Your task to perform on an android device: Go to internet settings Image 0: 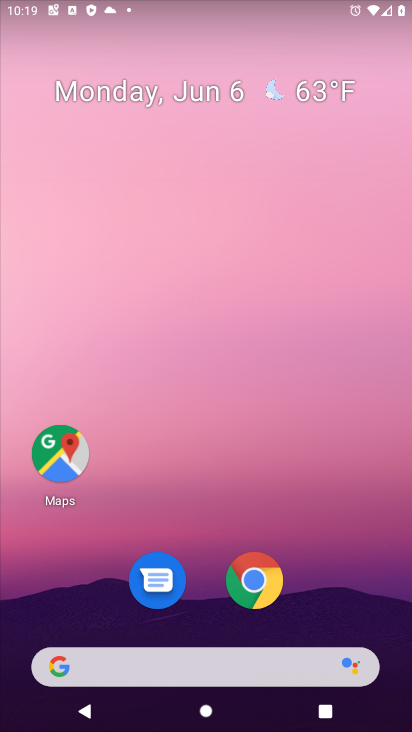
Step 0: drag from (336, 600) to (70, 0)
Your task to perform on an android device: Go to internet settings Image 1: 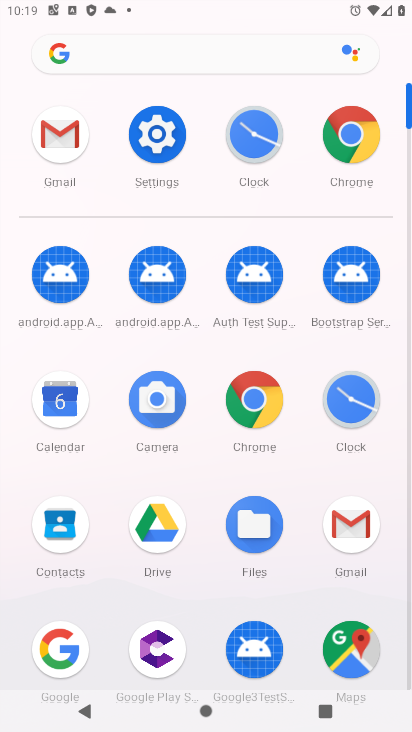
Step 1: click (147, 141)
Your task to perform on an android device: Go to internet settings Image 2: 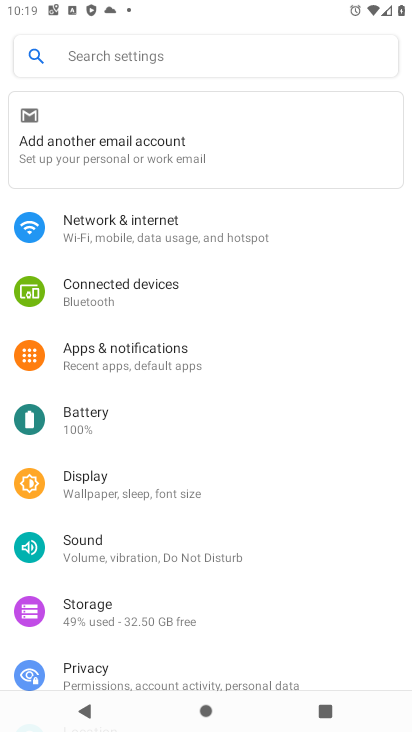
Step 2: click (130, 217)
Your task to perform on an android device: Go to internet settings Image 3: 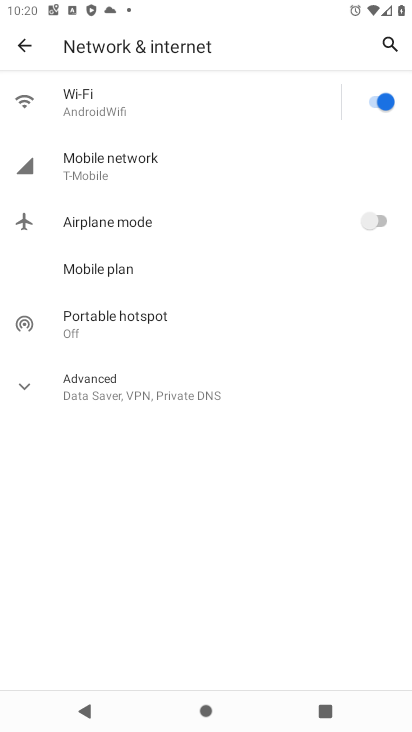
Step 3: task complete